Your task to perform on an android device: stop showing notifications on the lock screen Image 0: 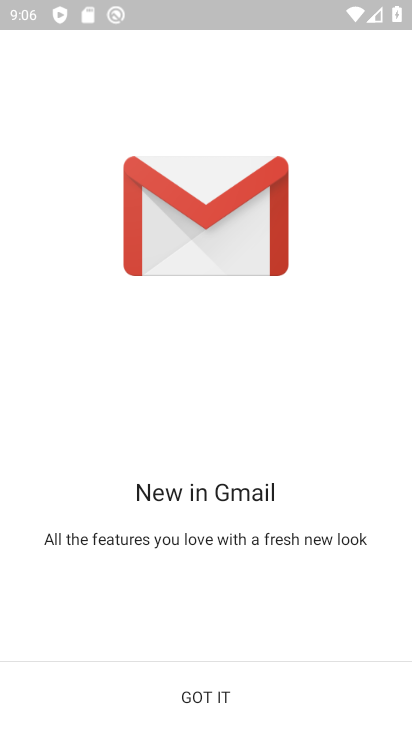
Step 0: press home button
Your task to perform on an android device: stop showing notifications on the lock screen Image 1: 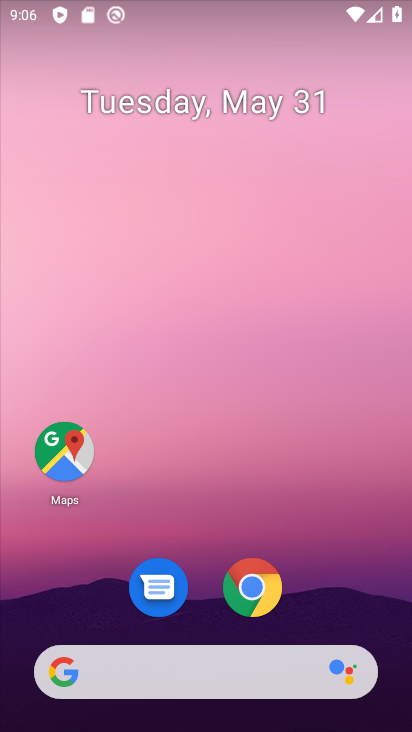
Step 1: drag from (327, 595) to (253, 3)
Your task to perform on an android device: stop showing notifications on the lock screen Image 2: 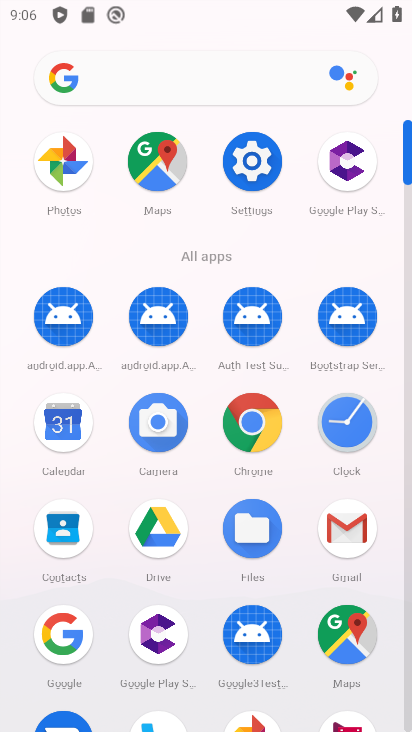
Step 2: click (243, 156)
Your task to perform on an android device: stop showing notifications on the lock screen Image 3: 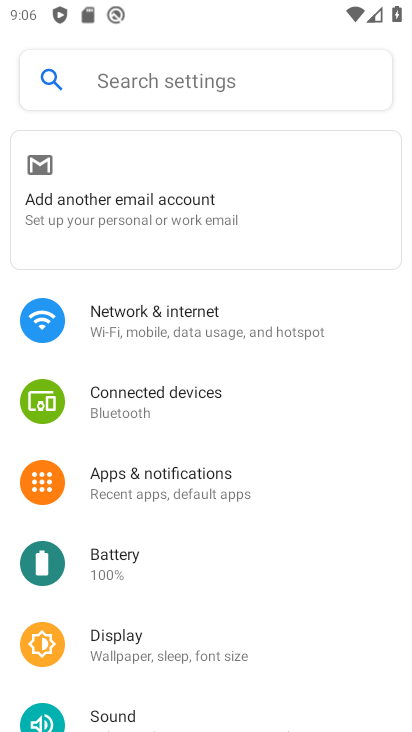
Step 3: drag from (282, 600) to (274, 421)
Your task to perform on an android device: stop showing notifications on the lock screen Image 4: 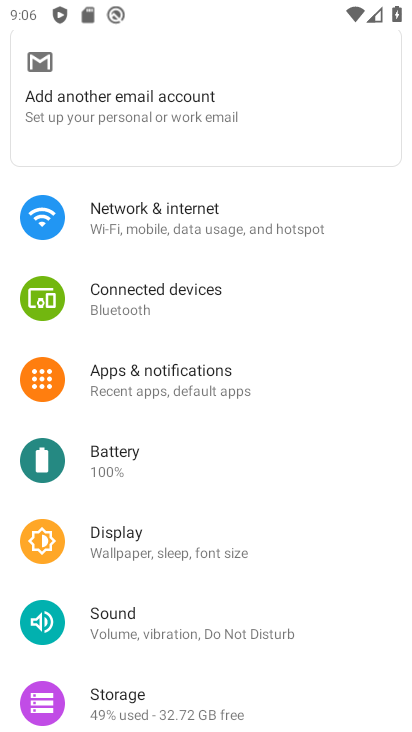
Step 4: click (184, 375)
Your task to perform on an android device: stop showing notifications on the lock screen Image 5: 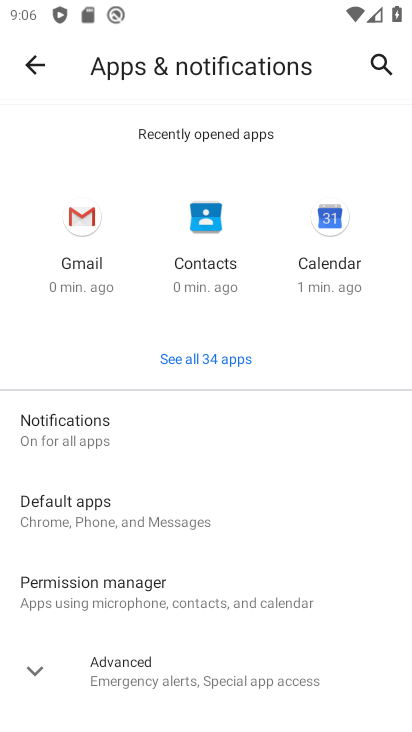
Step 5: drag from (322, 517) to (279, 290)
Your task to perform on an android device: stop showing notifications on the lock screen Image 6: 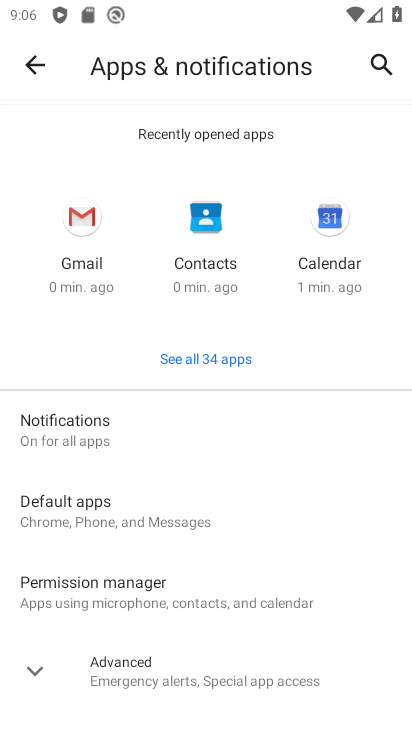
Step 6: click (75, 427)
Your task to perform on an android device: stop showing notifications on the lock screen Image 7: 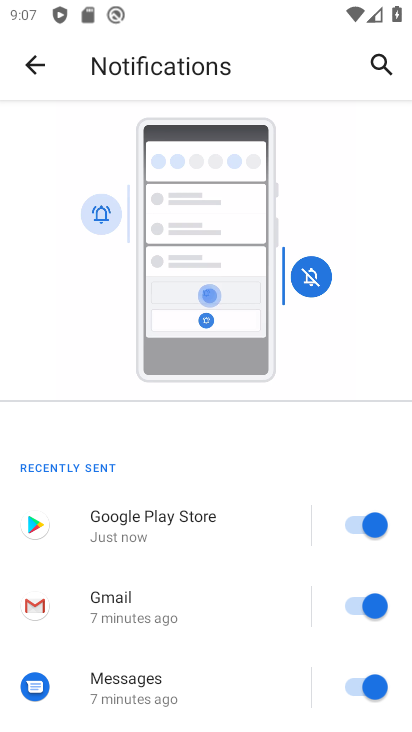
Step 7: drag from (280, 631) to (241, 270)
Your task to perform on an android device: stop showing notifications on the lock screen Image 8: 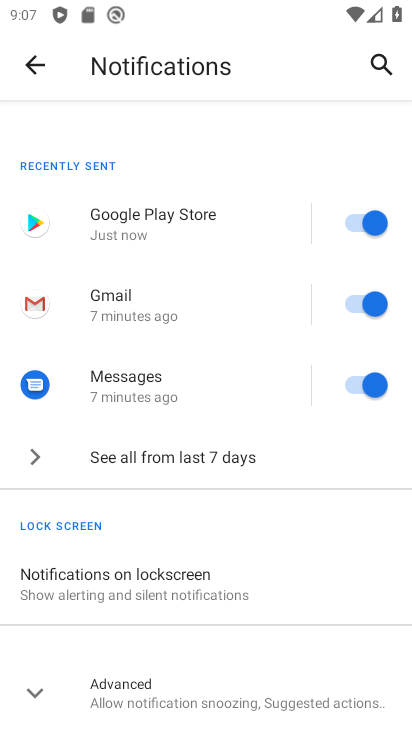
Step 8: click (51, 590)
Your task to perform on an android device: stop showing notifications on the lock screen Image 9: 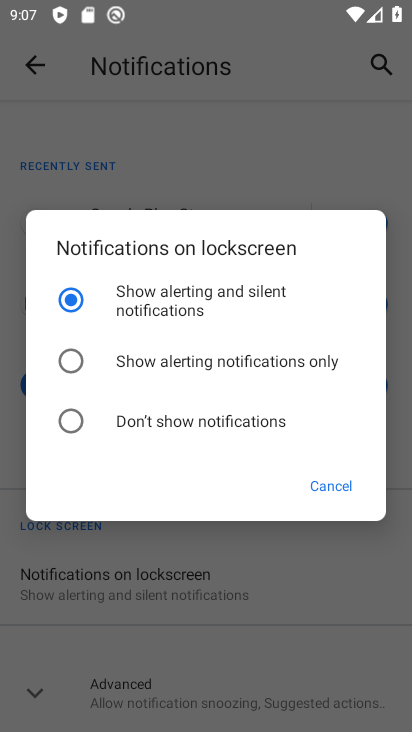
Step 9: click (134, 418)
Your task to perform on an android device: stop showing notifications on the lock screen Image 10: 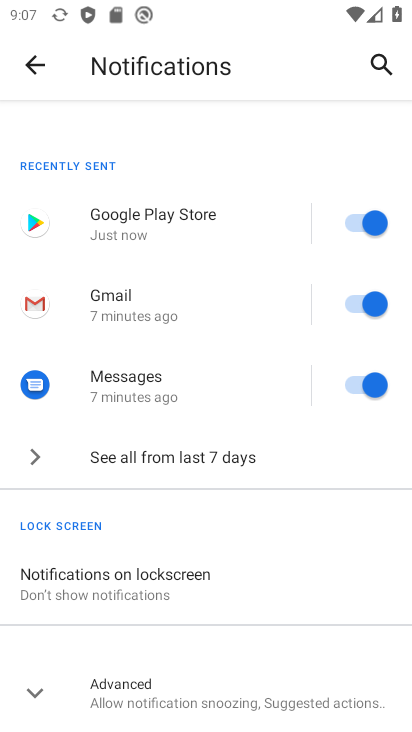
Step 10: task complete